Your task to perform on an android device: snooze an email in the gmail app Image 0: 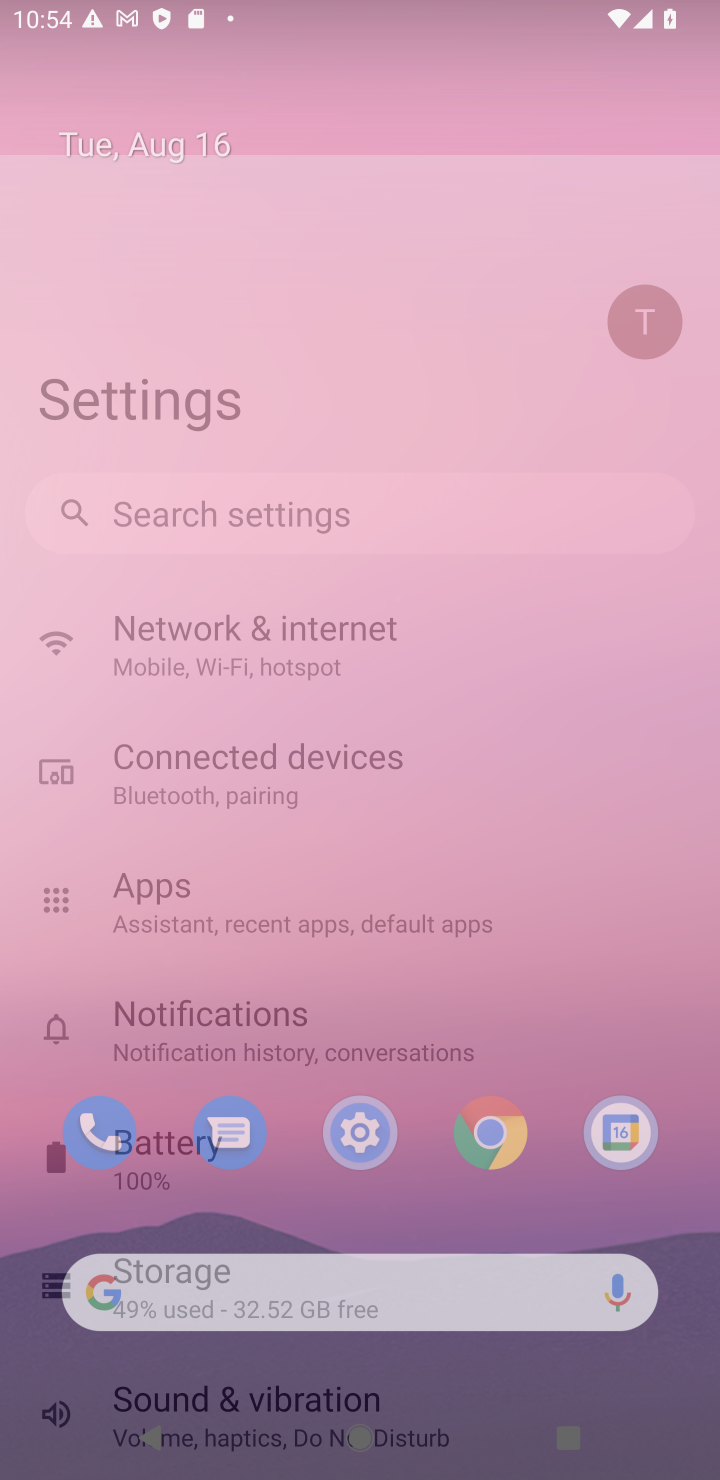
Step 0: press home button
Your task to perform on an android device: snooze an email in the gmail app Image 1: 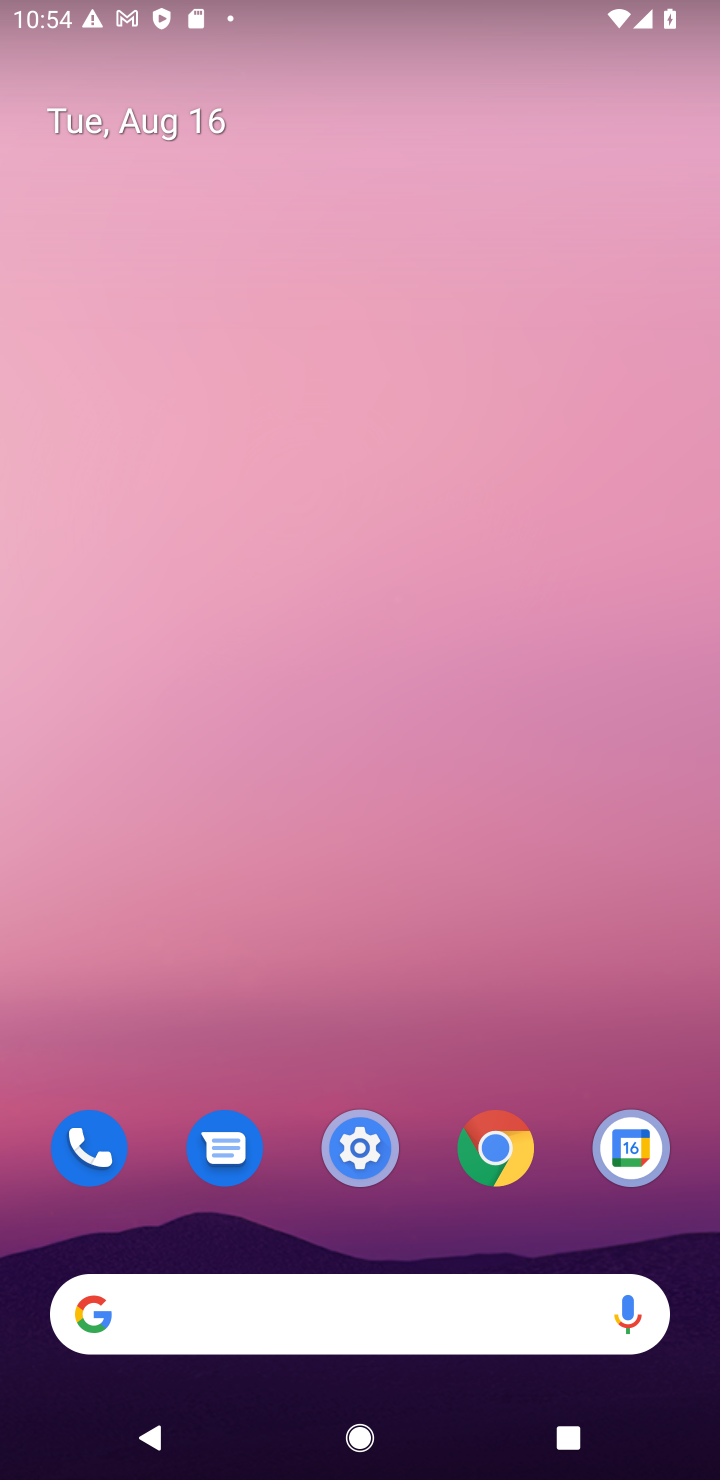
Step 1: drag from (360, 1193) to (353, 579)
Your task to perform on an android device: snooze an email in the gmail app Image 2: 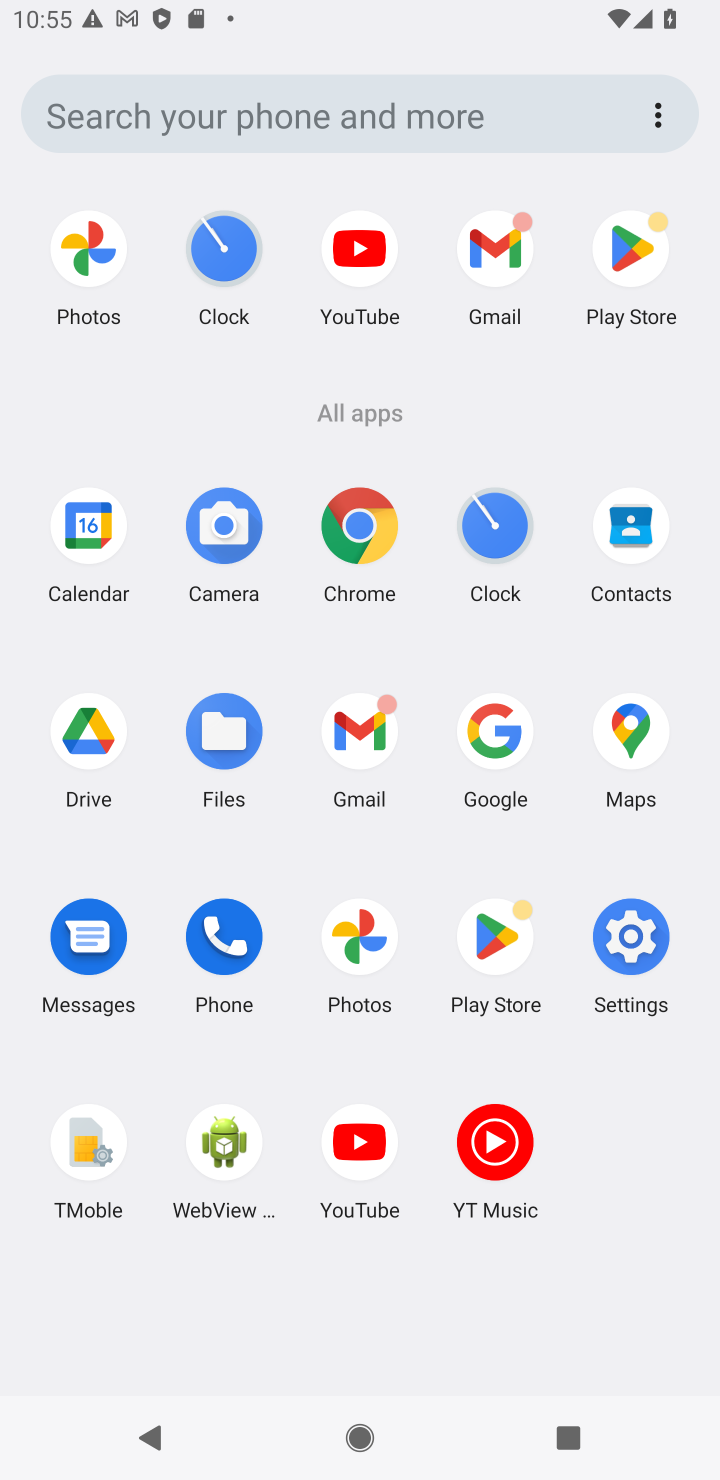
Step 2: click (385, 726)
Your task to perform on an android device: snooze an email in the gmail app Image 3: 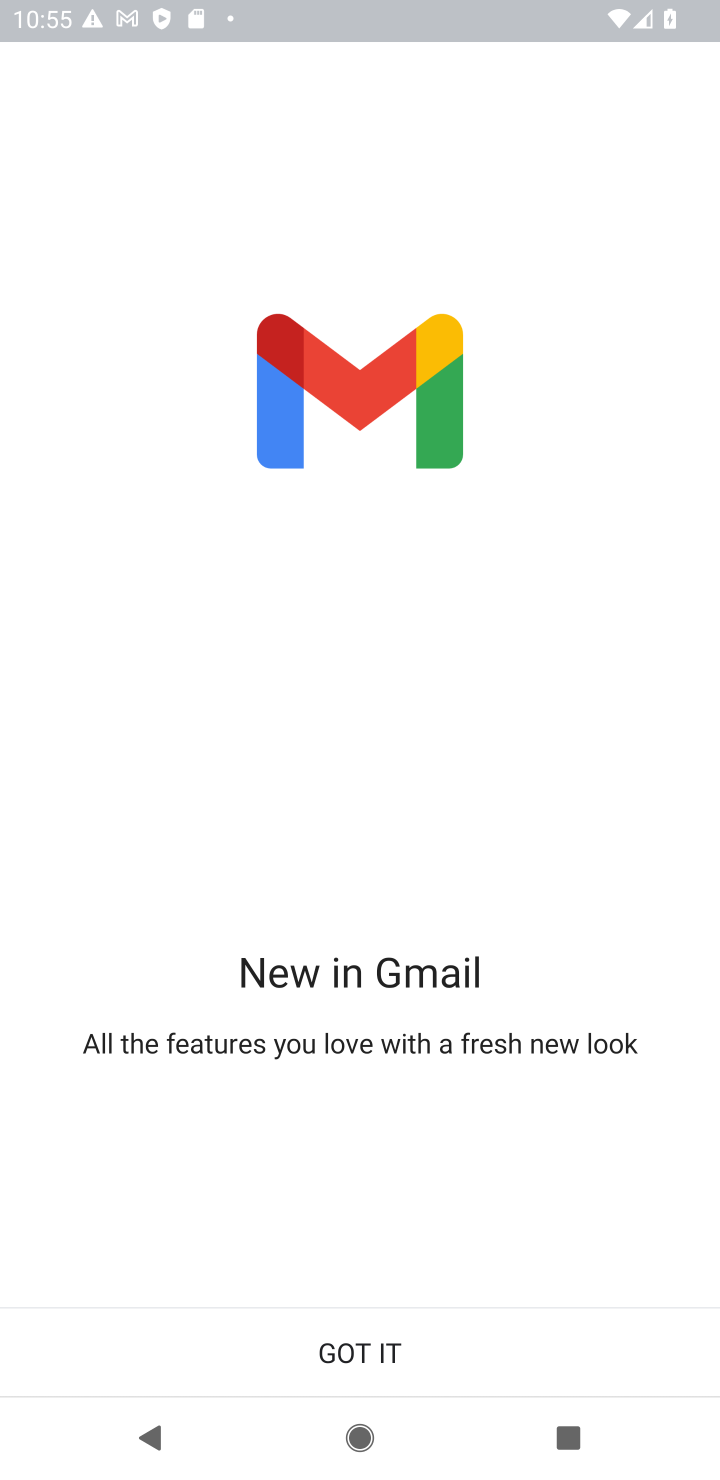
Step 3: click (380, 1340)
Your task to perform on an android device: snooze an email in the gmail app Image 4: 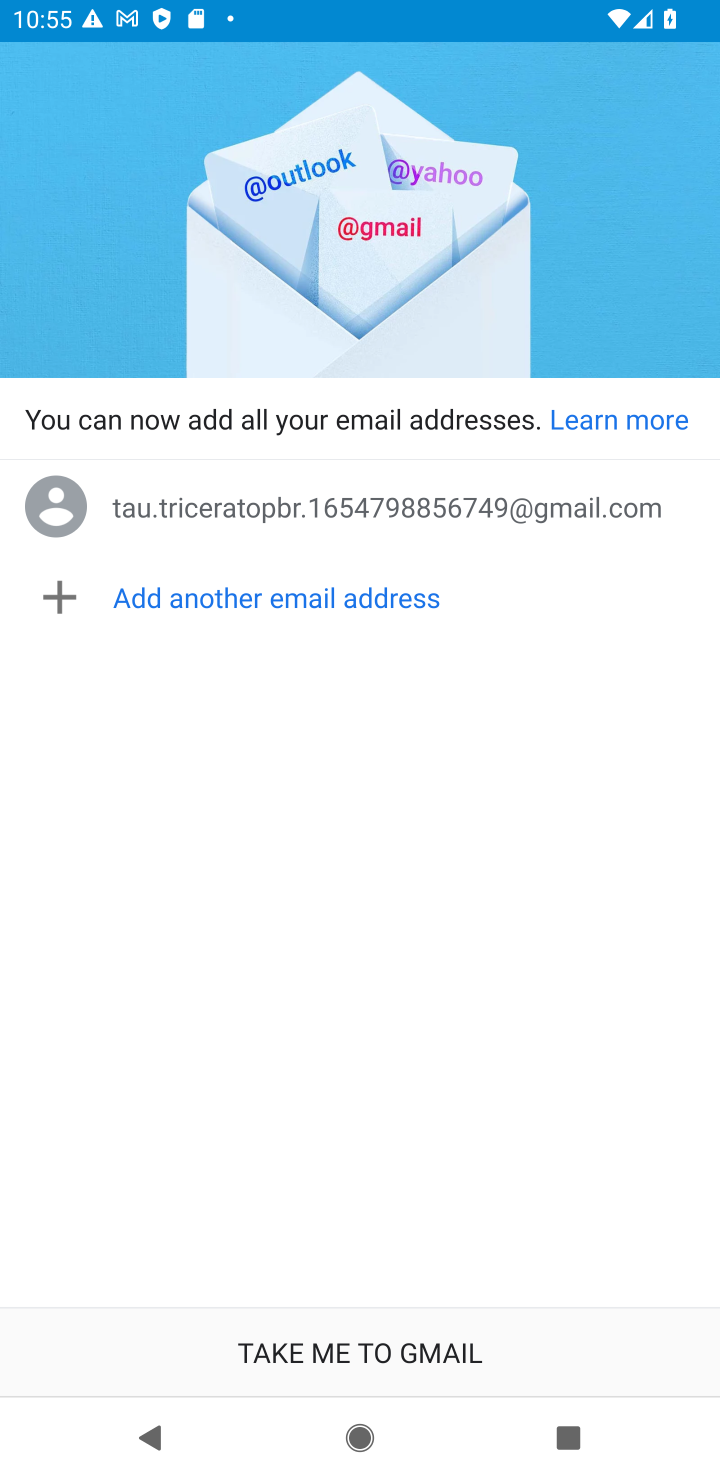
Step 4: click (357, 1343)
Your task to perform on an android device: snooze an email in the gmail app Image 5: 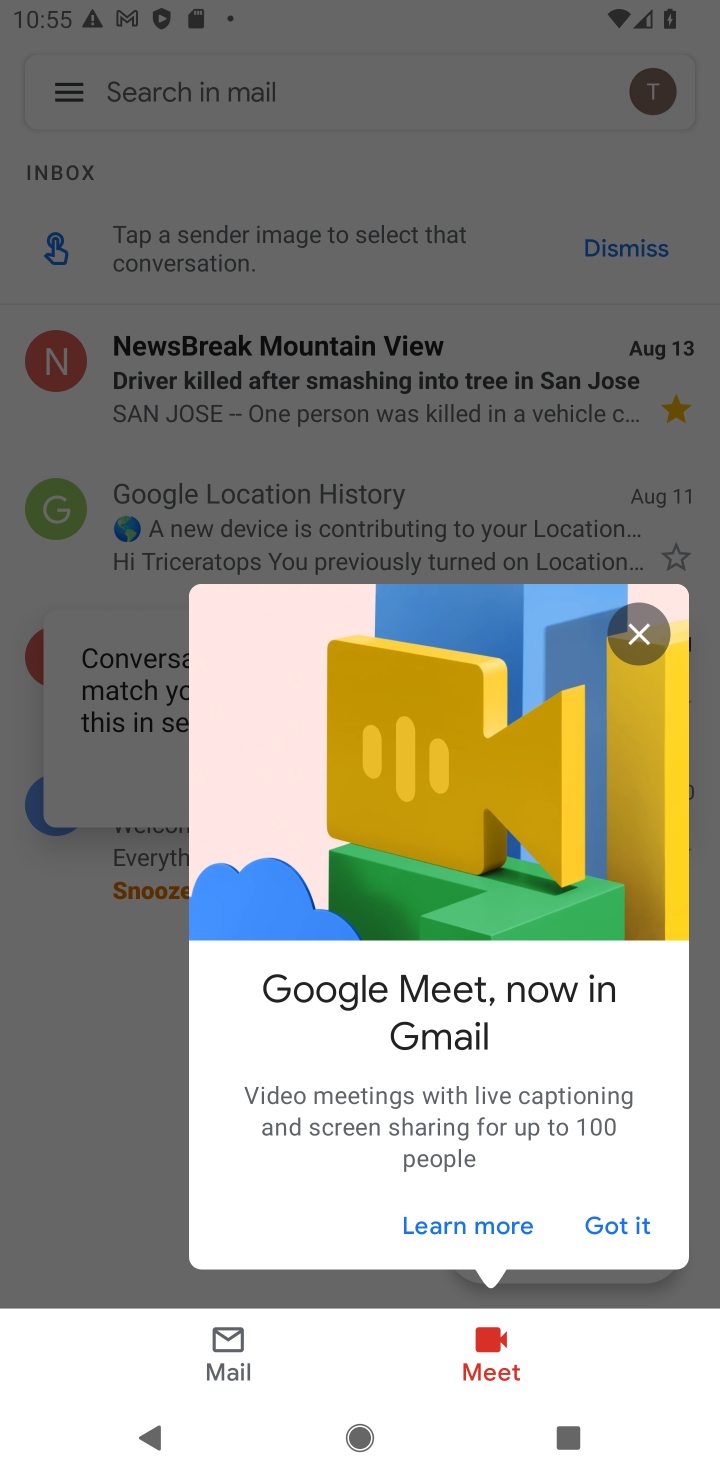
Step 5: click (638, 634)
Your task to perform on an android device: snooze an email in the gmail app Image 6: 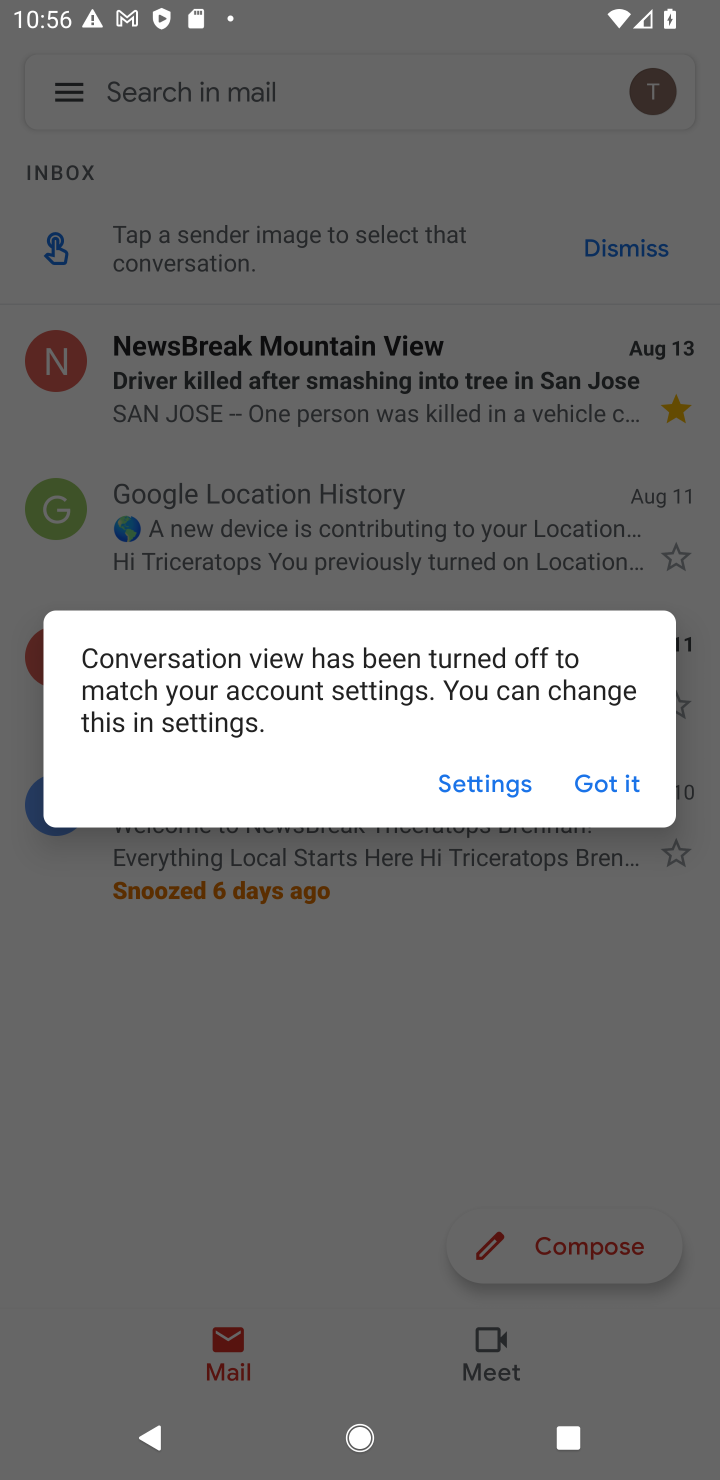
Step 6: click (617, 773)
Your task to perform on an android device: snooze an email in the gmail app Image 7: 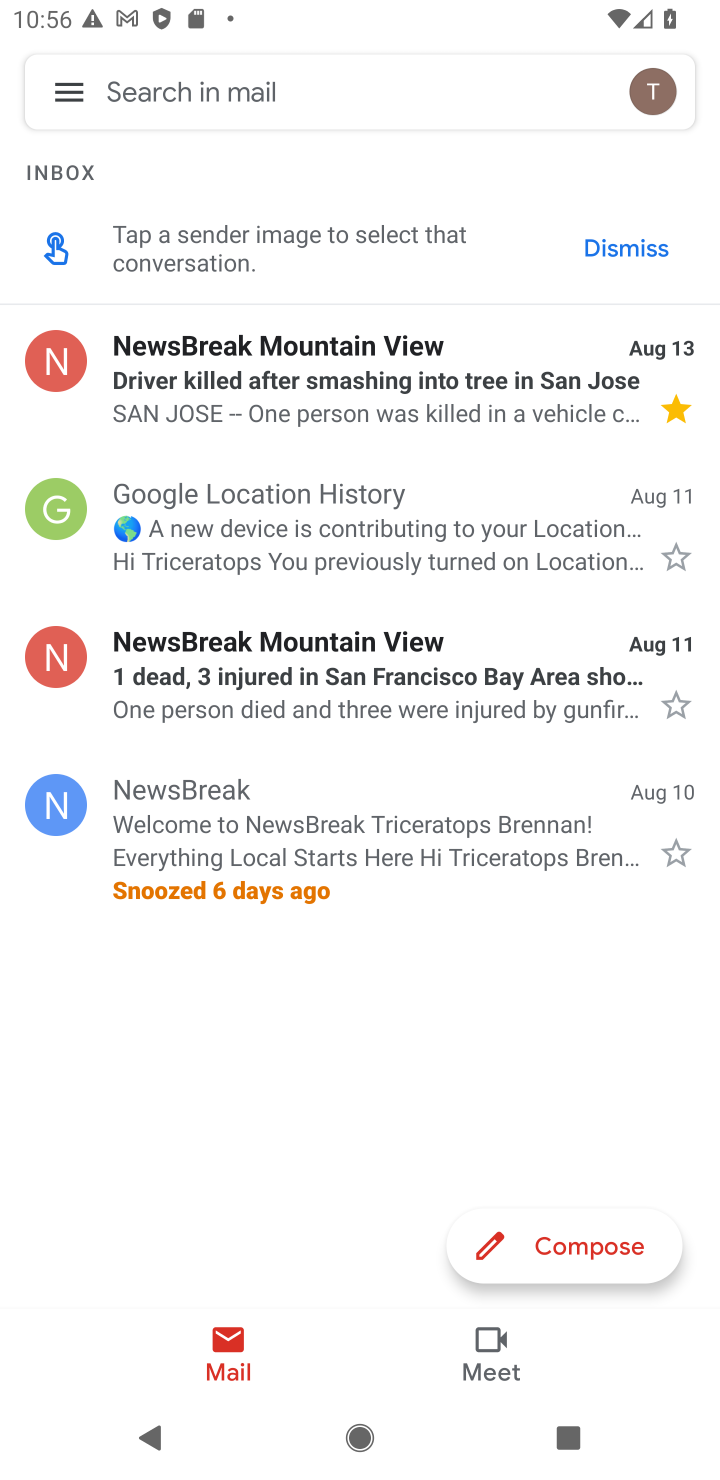
Step 7: drag from (427, 686) to (343, 724)
Your task to perform on an android device: snooze an email in the gmail app Image 8: 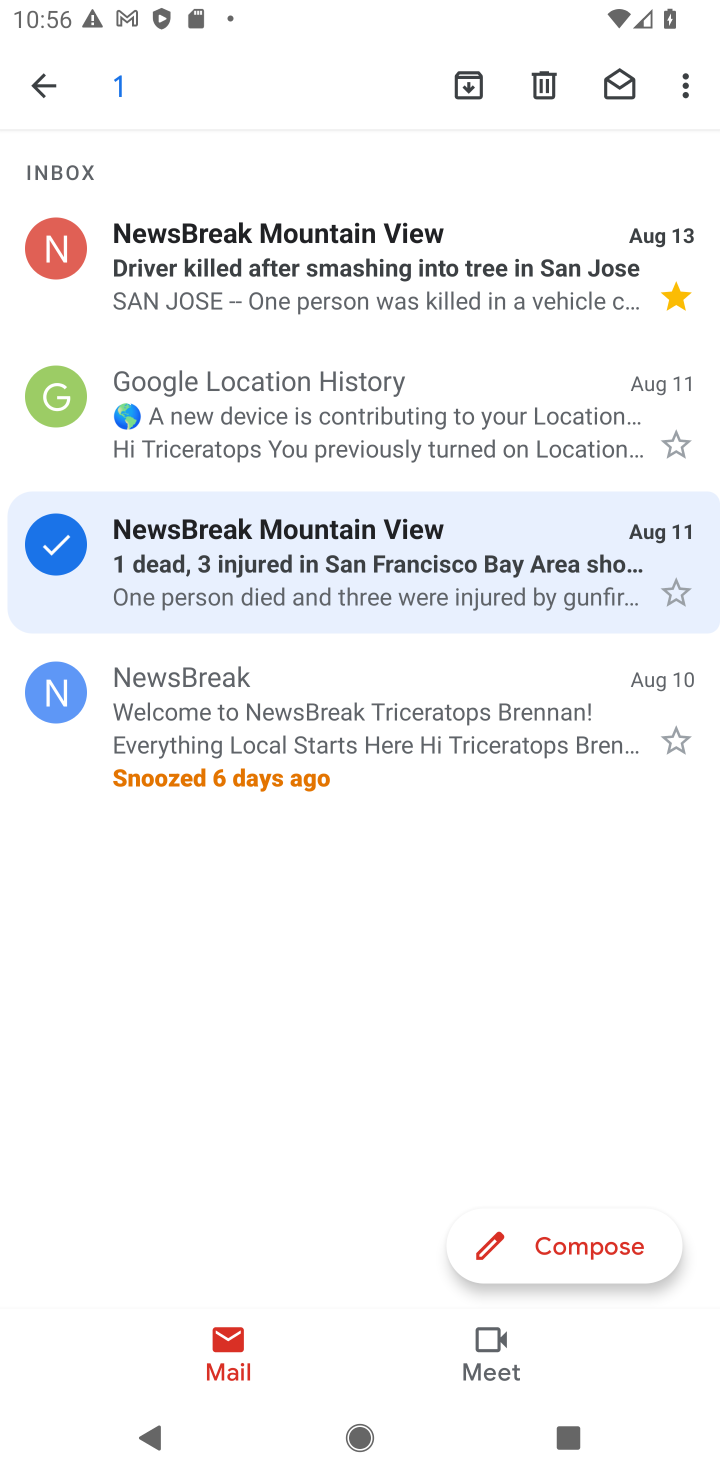
Step 8: click (701, 72)
Your task to perform on an android device: snooze an email in the gmail app Image 9: 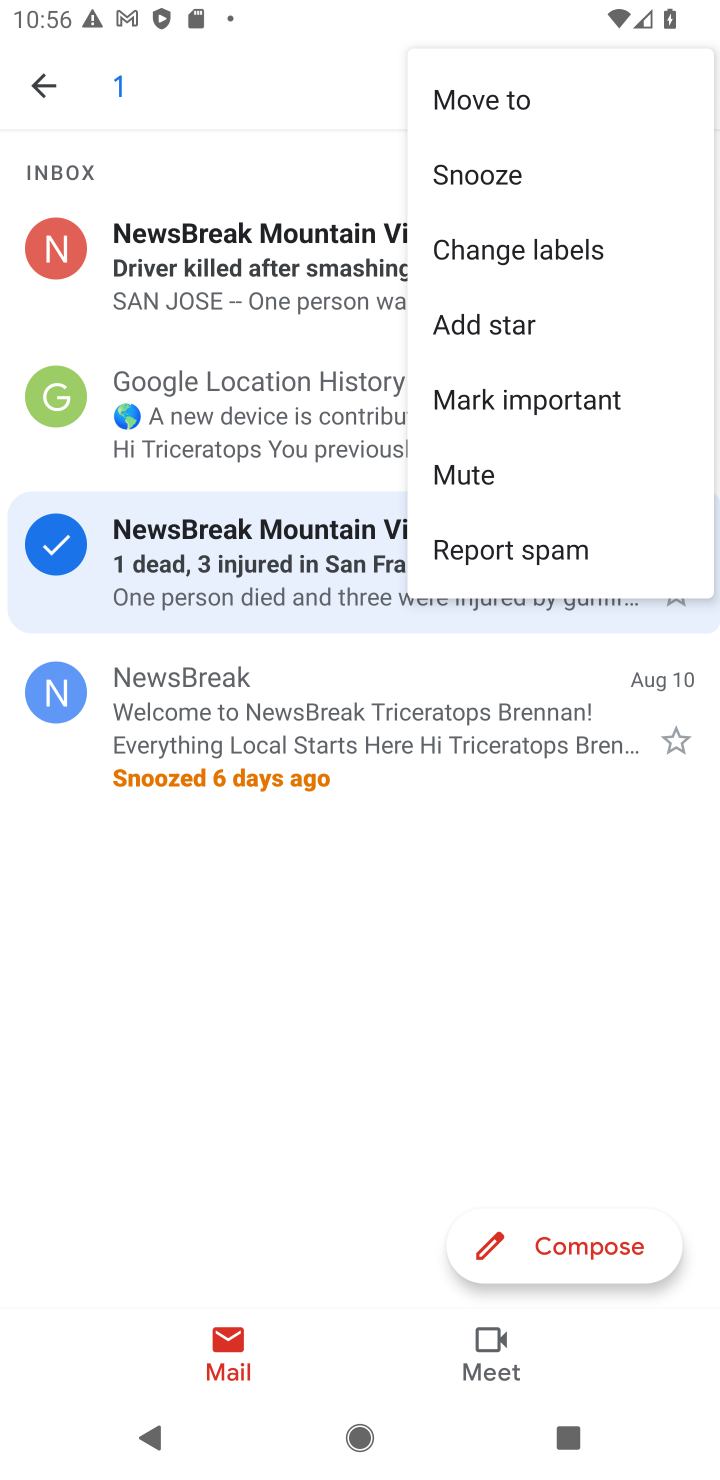
Step 9: click (461, 201)
Your task to perform on an android device: snooze an email in the gmail app Image 10: 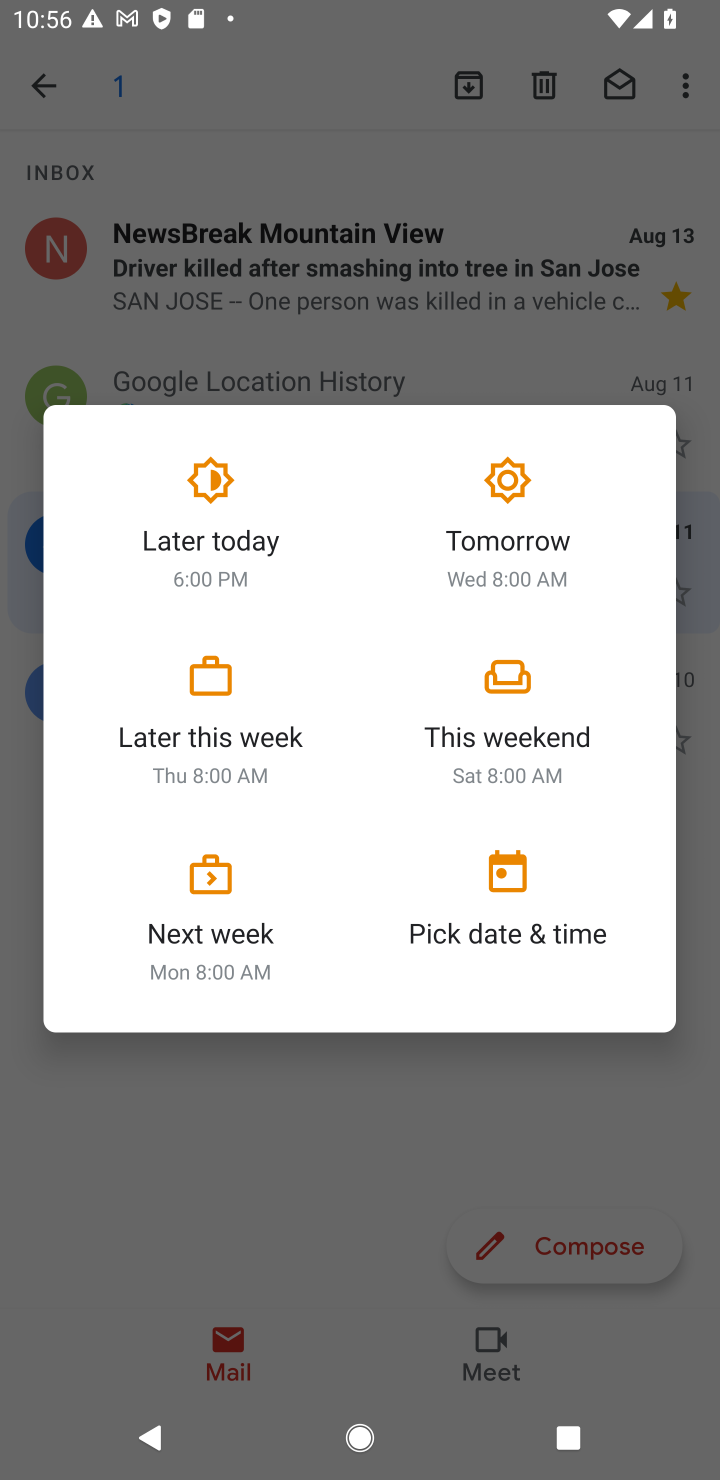
Step 10: click (224, 1002)
Your task to perform on an android device: snooze an email in the gmail app Image 11: 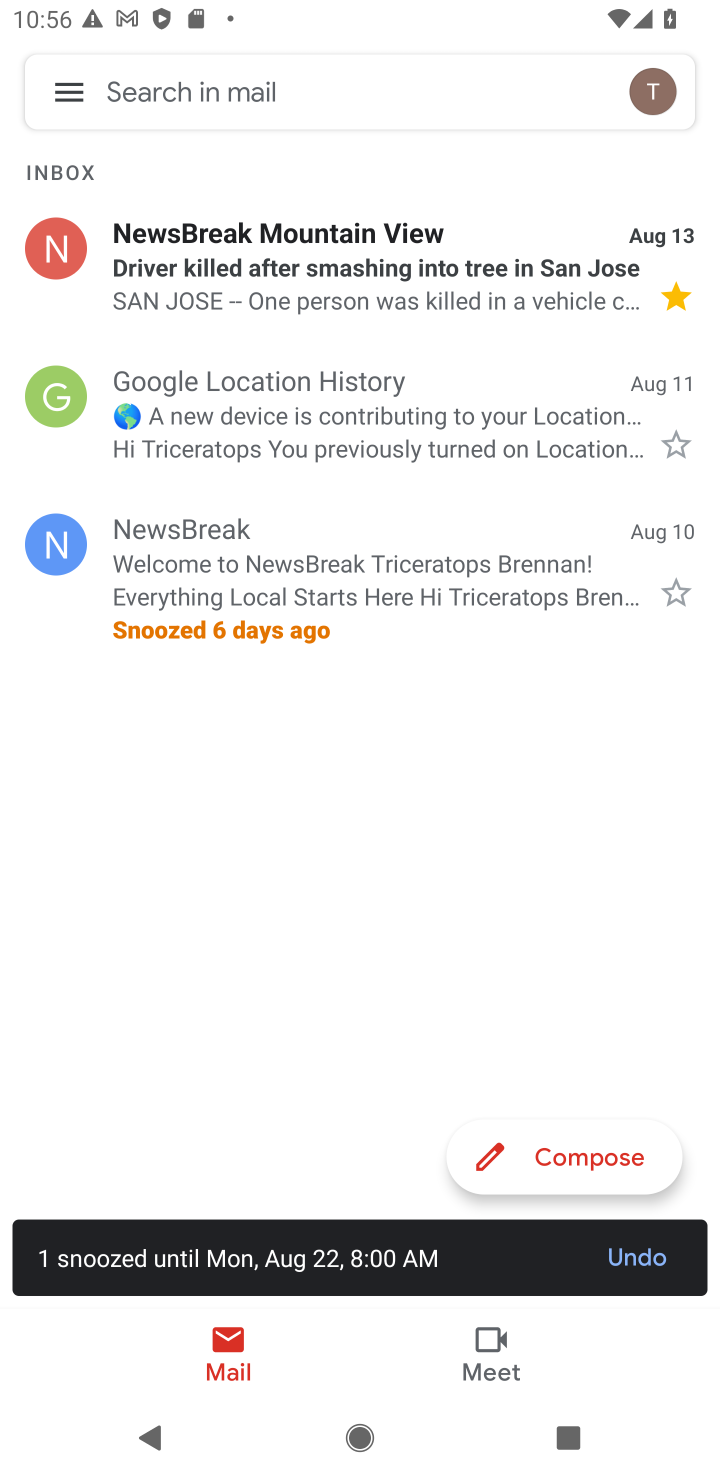
Step 11: task complete